Your task to perform on an android device: change notifications settings Image 0: 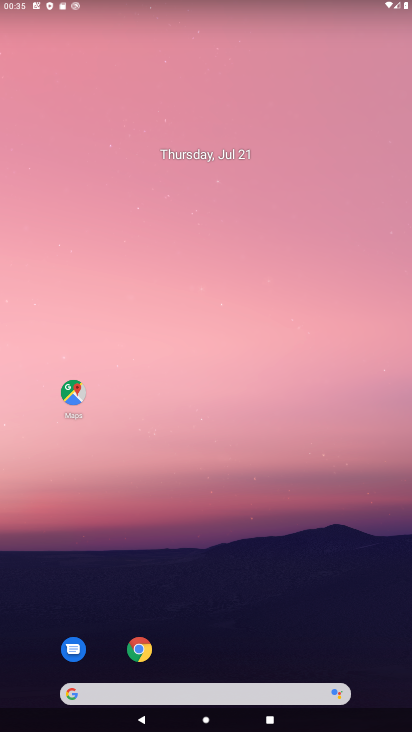
Step 0: drag from (235, 724) to (268, 89)
Your task to perform on an android device: change notifications settings Image 1: 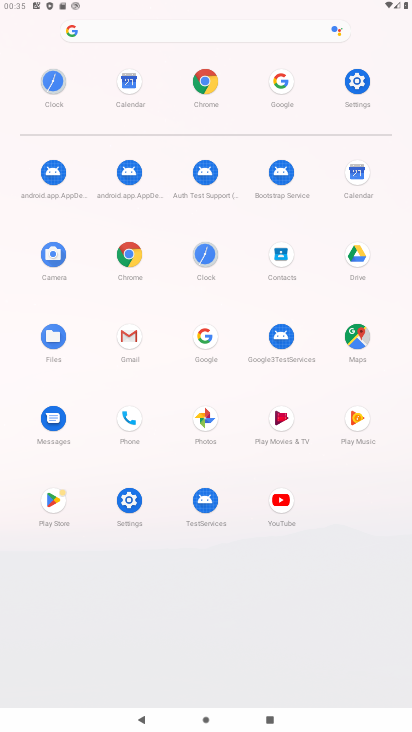
Step 1: click (355, 82)
Your task to perform on an android device: change notifications settings Image 2: 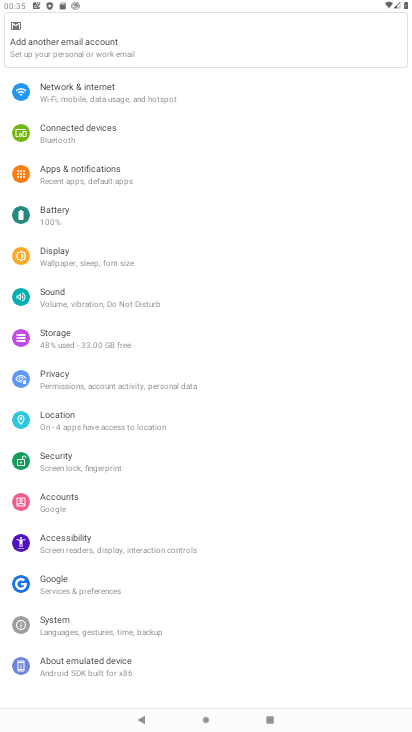
Step 2: click (98, 174)
Your task to perform on an android device: change notifications settings Image 3: 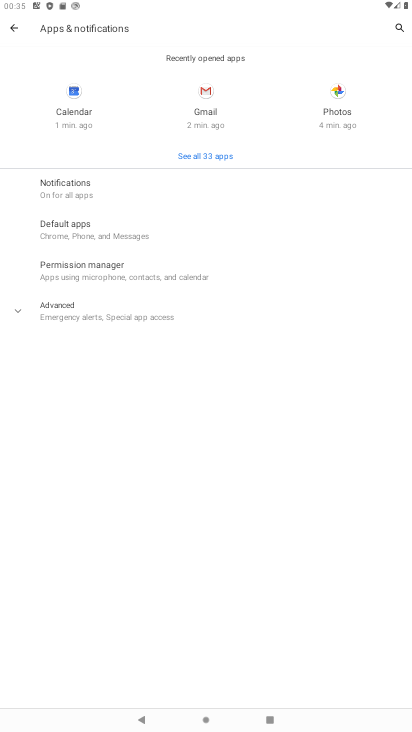
Step 3: click (64, 180)
Your task to perform on an android device: change notifications settings Image 4: 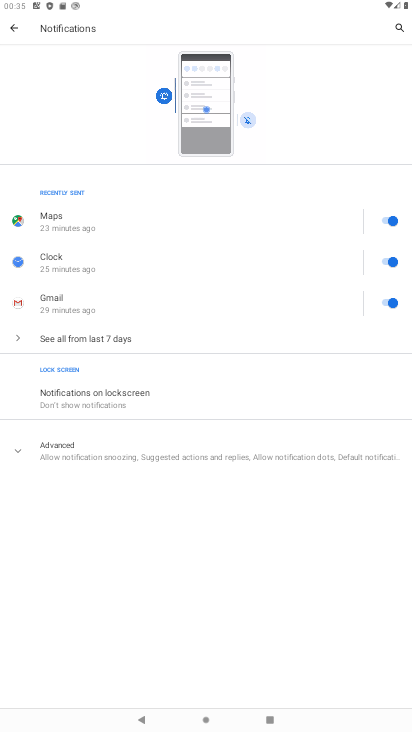
Step 4: click (81, 452)
Your task to perform on an android device: change notifications settings Image 5: 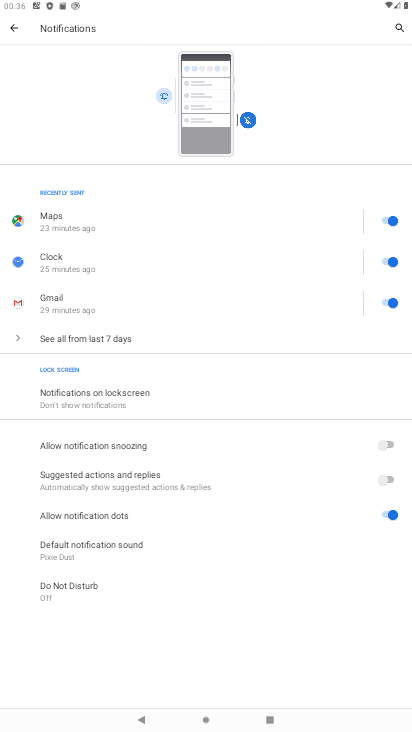
Step 5: click (389, 477)
Your task to perform on an android device: change notifications settings Image 6: 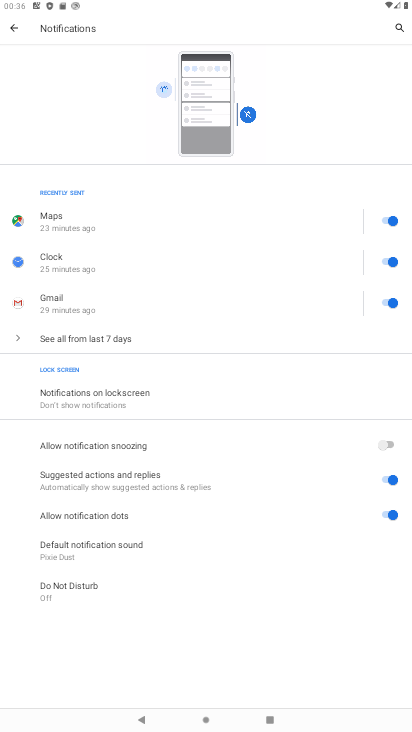
Step 6: task complete